Your task to perform on an android device: find snoozed emails in the gmail app Image 0: 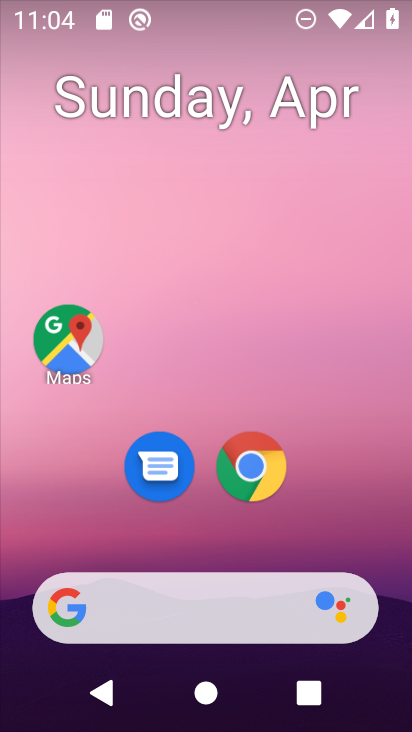
Step 0: drag from (364, 527) to (353, 142)
Your task to perform on an android device: find snoozed emails in the gmail app Image 1: 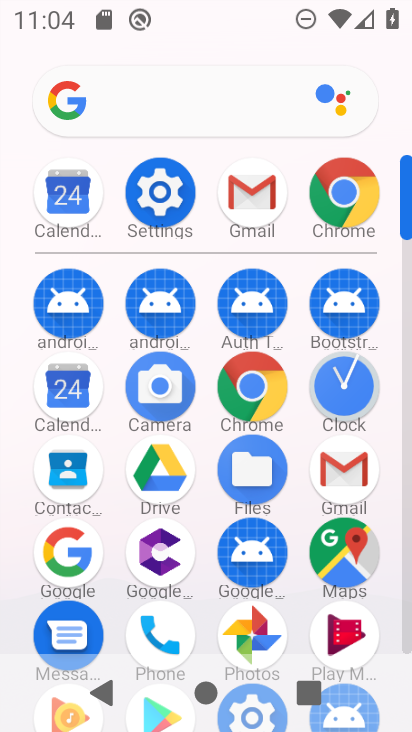
Step 1: click (346, 466)
Your task to perform on an android device: find snoozed emails in the gmail app Image 2: 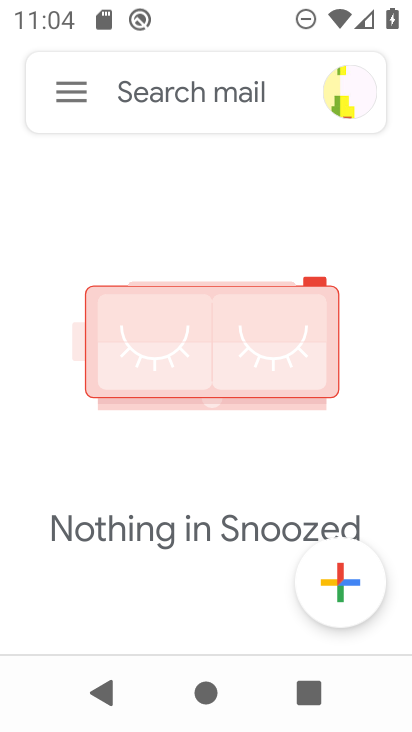
Step 2: click (76, 91)
Your task to perform on an android device: find snoozed emails in the gmail app Image 3: 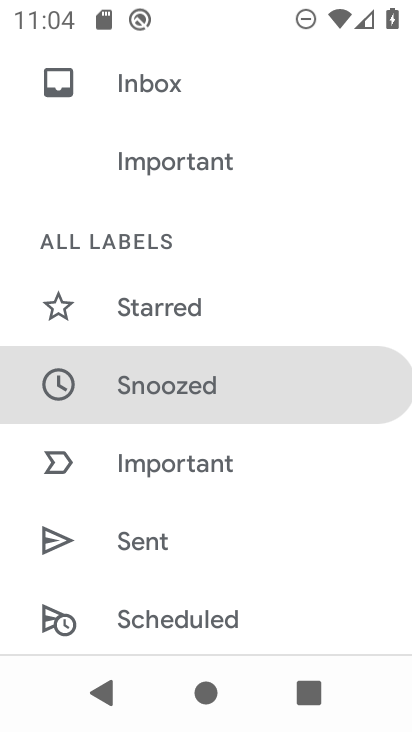
Step 3: click (288, 386)
Your task to perform on an android device: find snoozed emails in the gmail app Image 4: 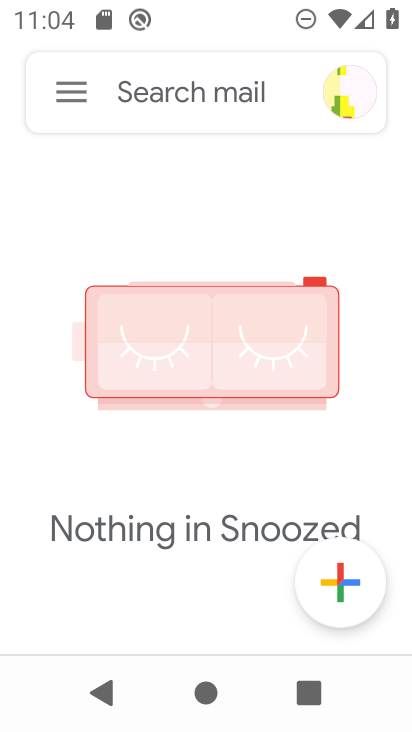
Step 4: task complete